Your task to perform on an android device: open the mobile data screen to see how much data has been used Image 0: 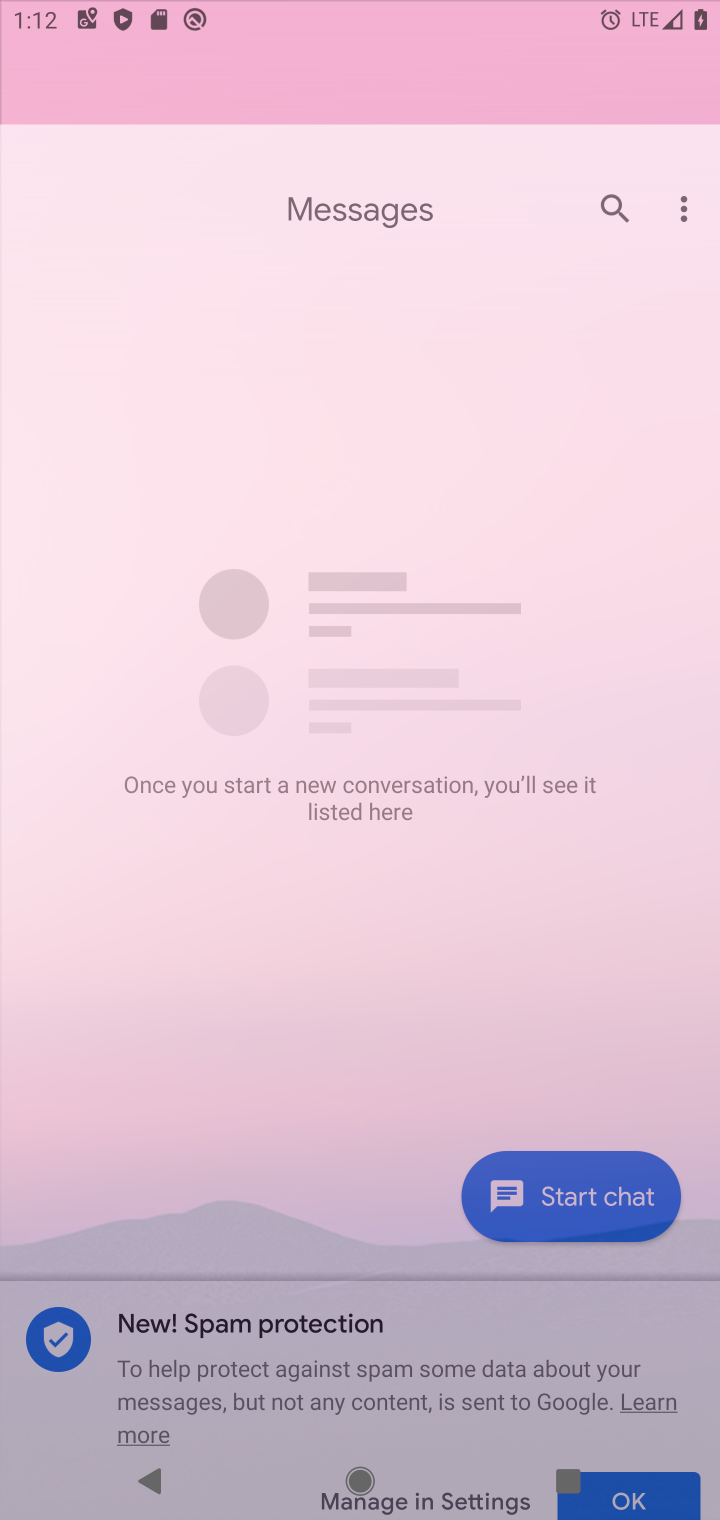
Step 0: press home button
Your task to perform on an android device: open the mobile data screen to see how much data has been used Image 1: 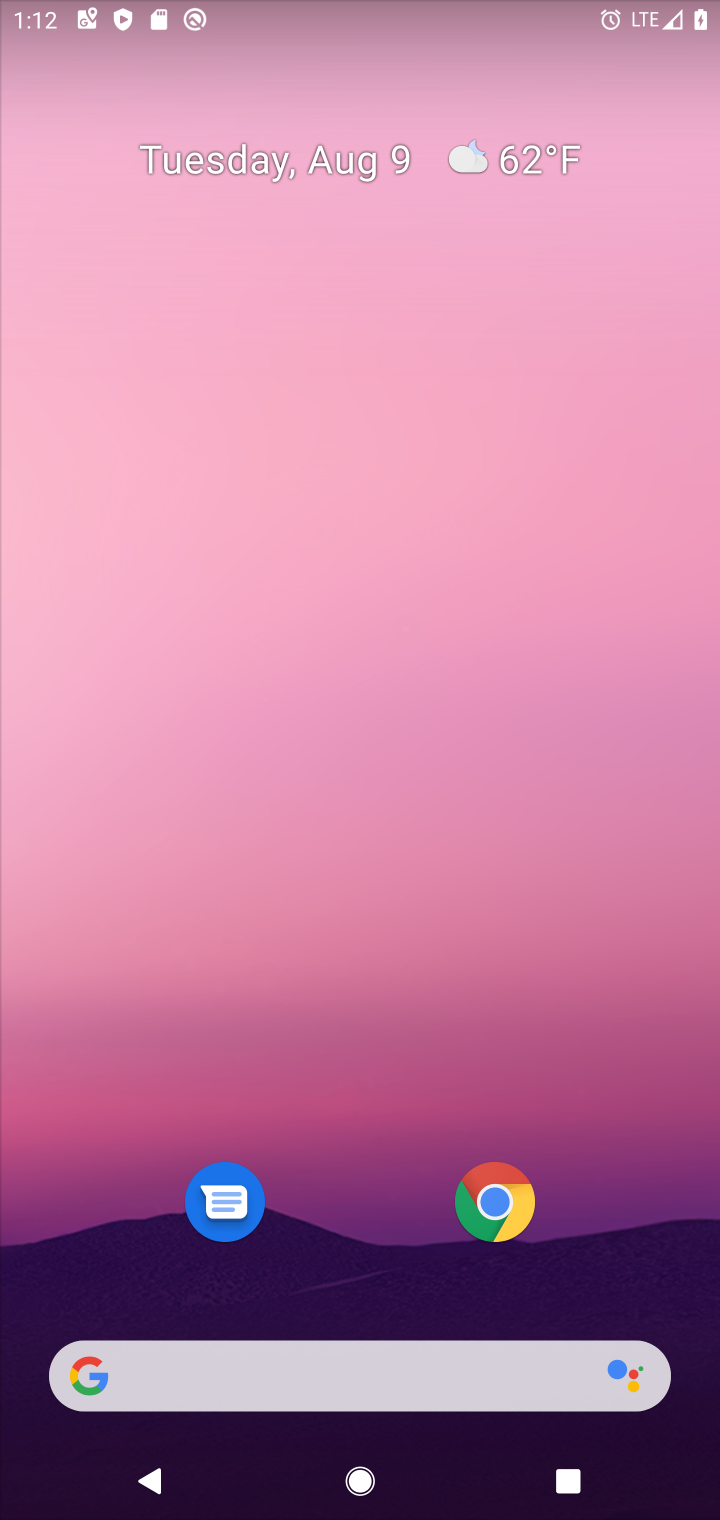
Step 1: click (489, 1193)
Your task to perform on an android device: open the mobile data screen to see how much data has been used Image 2: 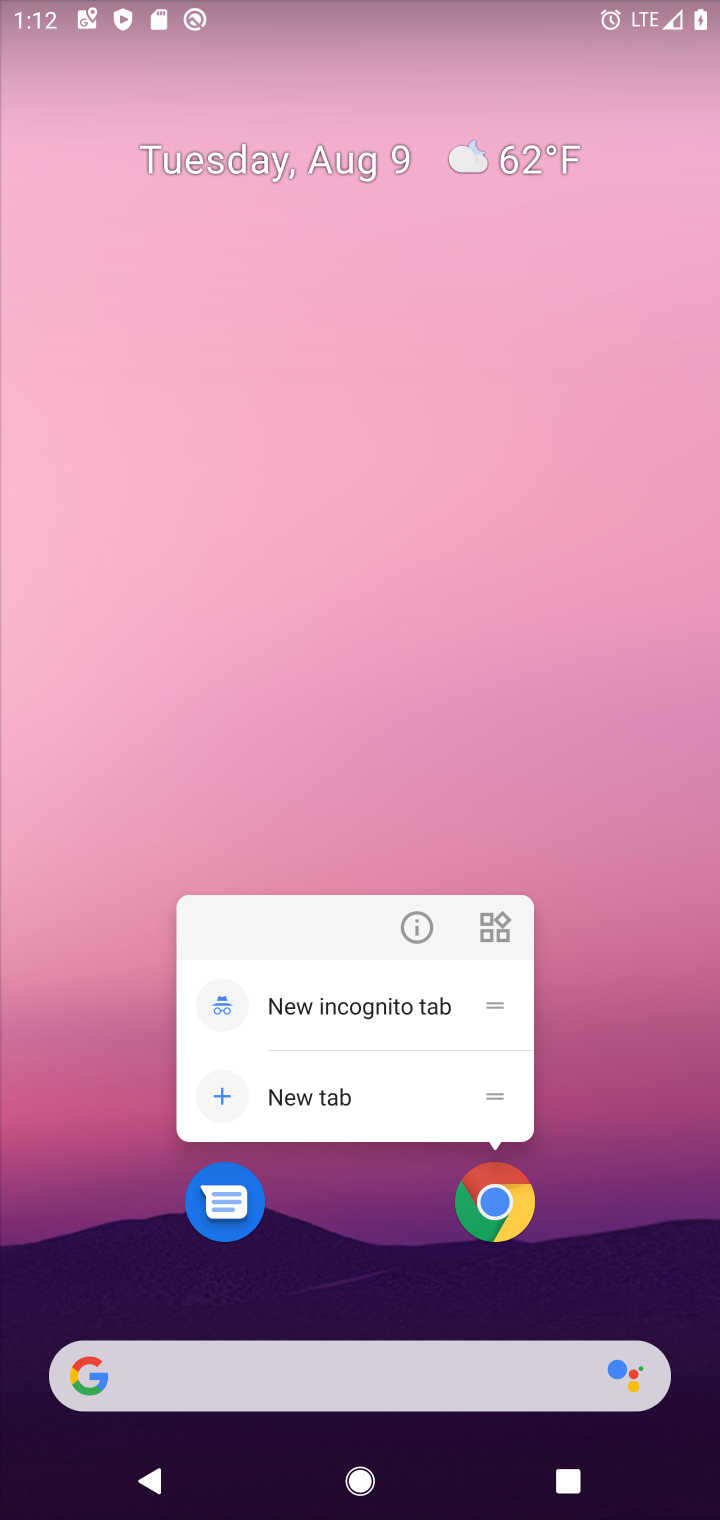
Step 2: click (506, 1201)
Your task to perform on an android device: open the mobile data screen to see how much data has been used Image 3: 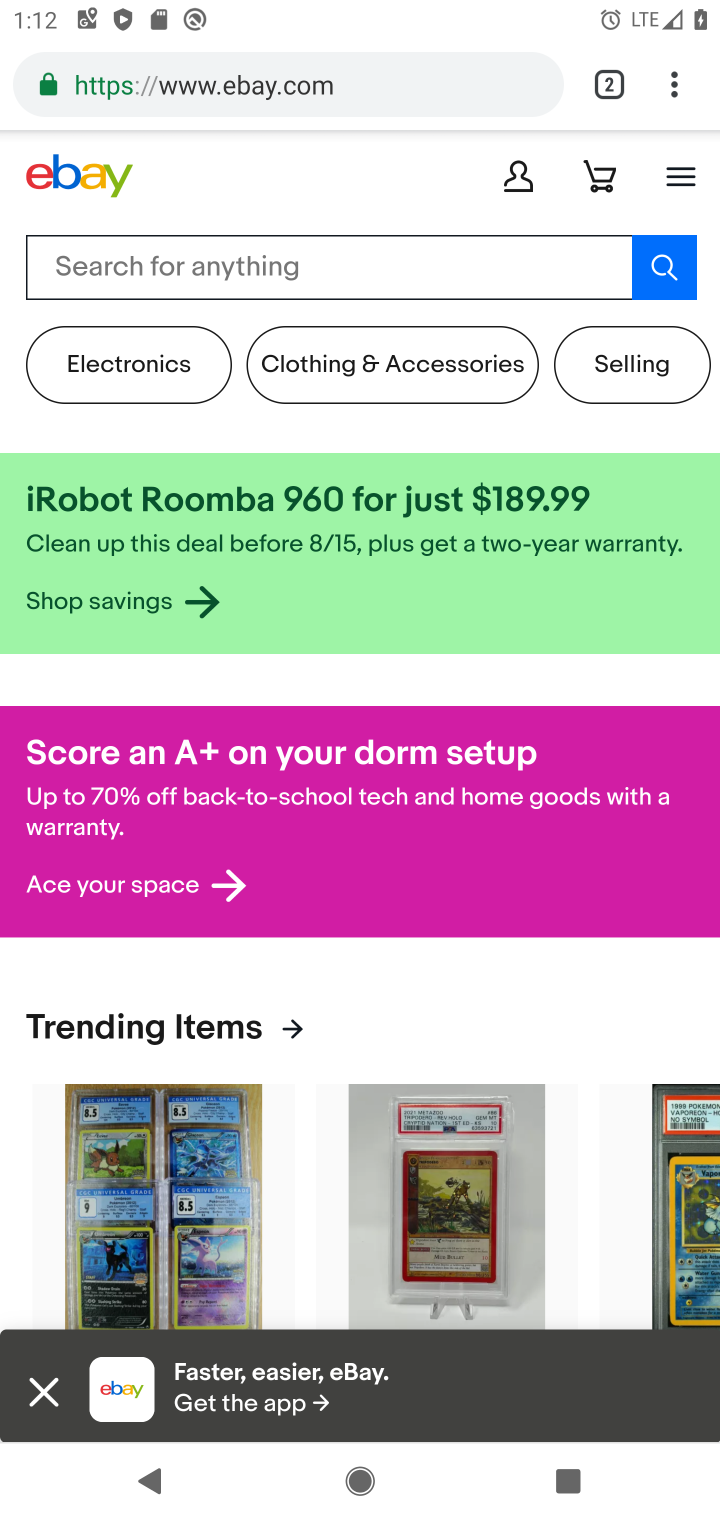
Step 3: press home button
Your task to perform on an android device: open the mobile data screen to see how much data has been used Image 4: 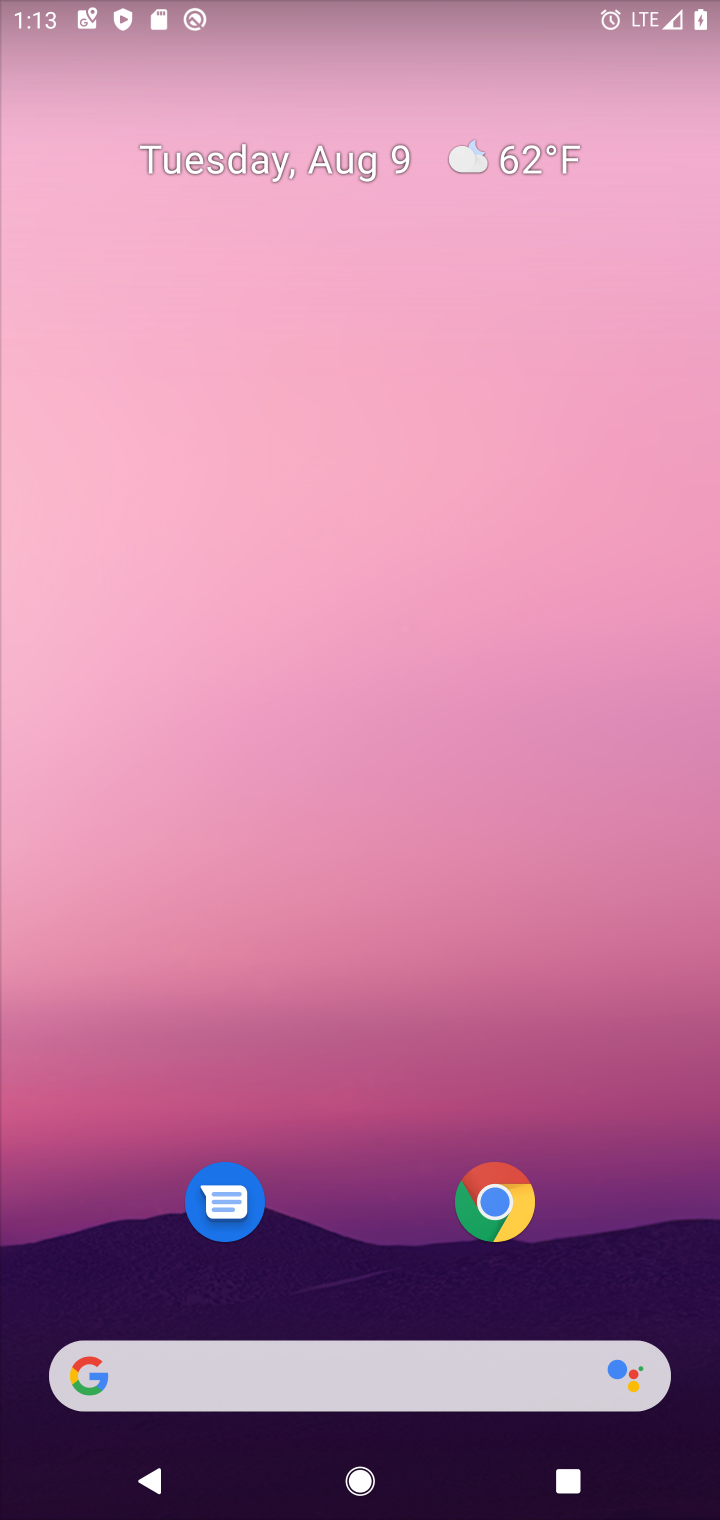
Step 4: click (368, 484)
Your task to perform on an android device: open the mobile data screen to see how much data has been used Image 5: 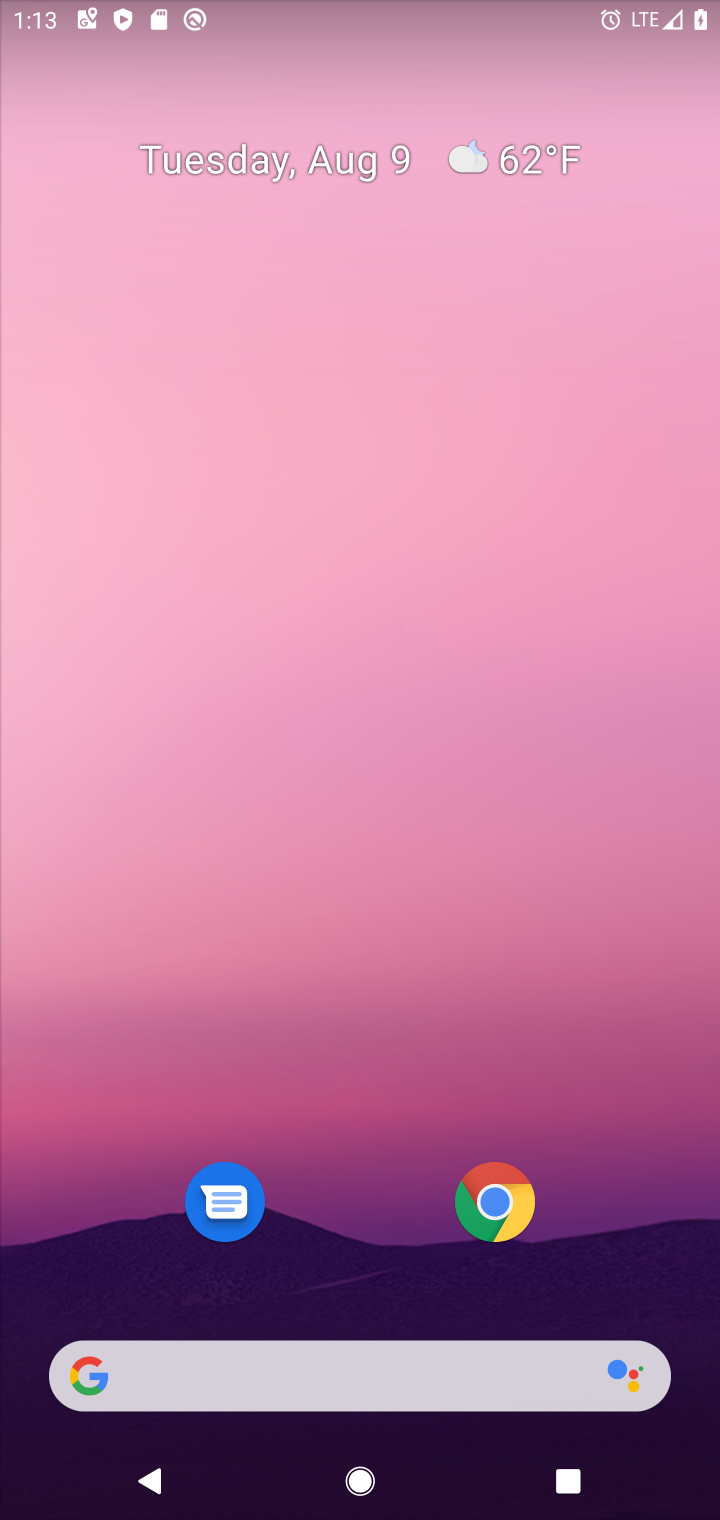
Step 5: drag from (364, 1252) to (462, 23)
Your task to perform on an android device: open the mobile data screen to see how much data has been used Image 6: 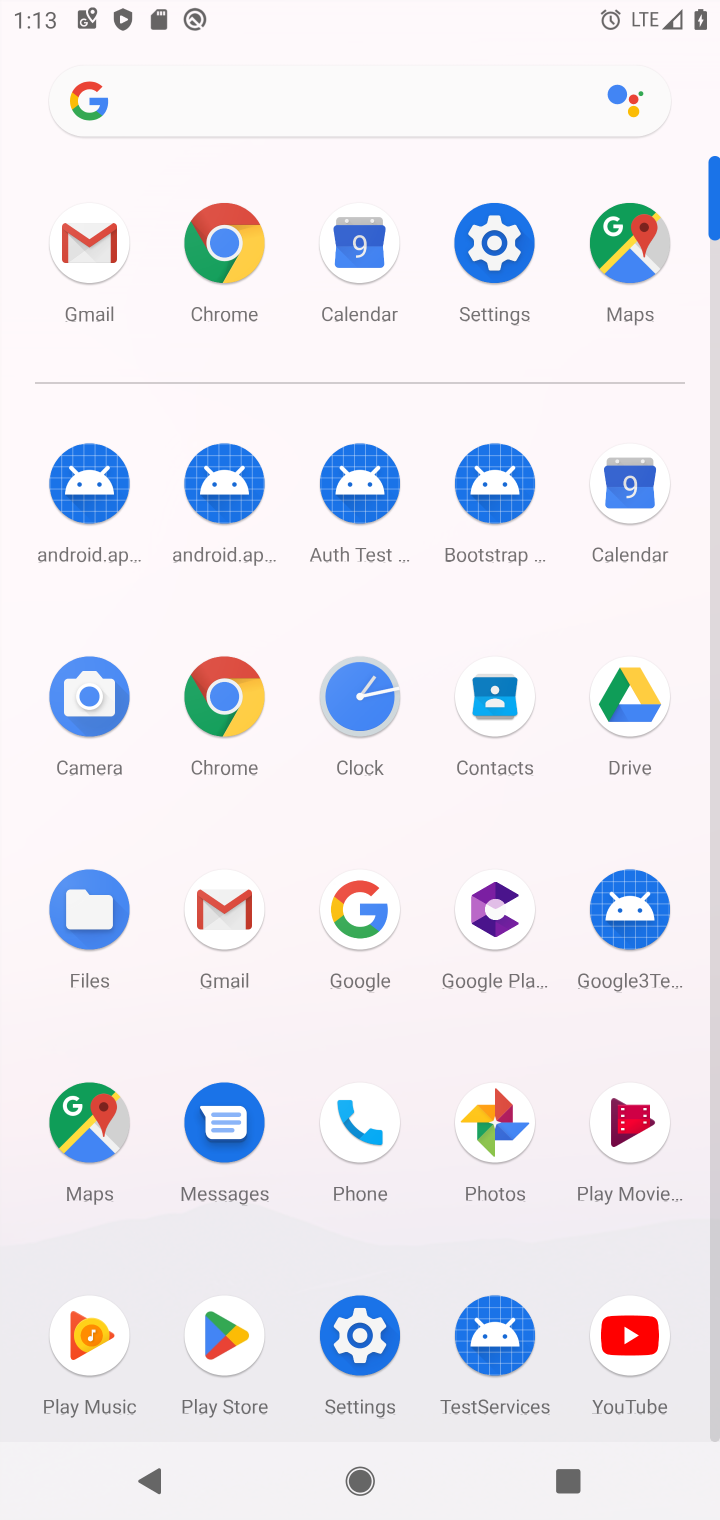
Step 6: click (505, 234)
Your task to perform on an android device: open the mobile data screen to see how much data has been used Image 7: 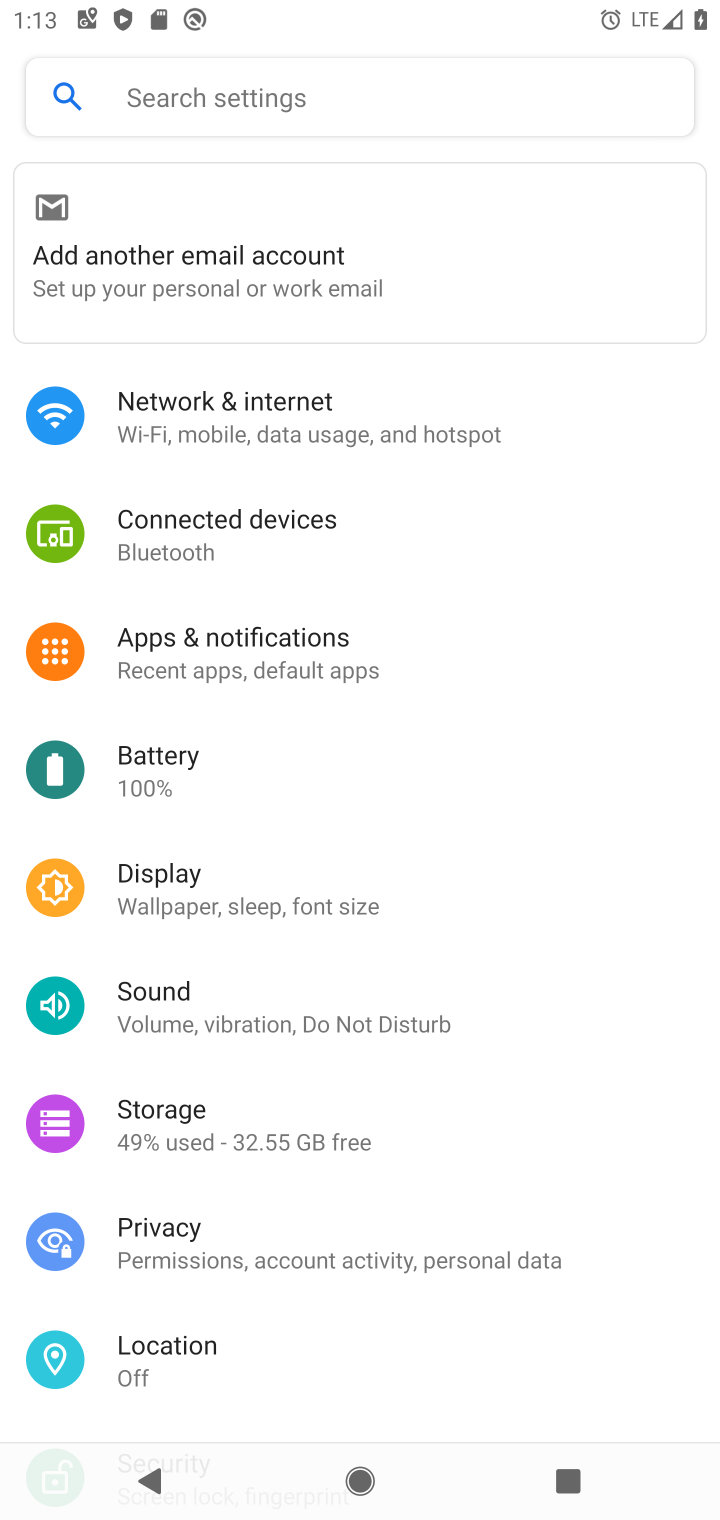
Step 7: click (152, 417)
Your task to perform on an android device: open the mobile data screen to see how much data has been used Image 8: 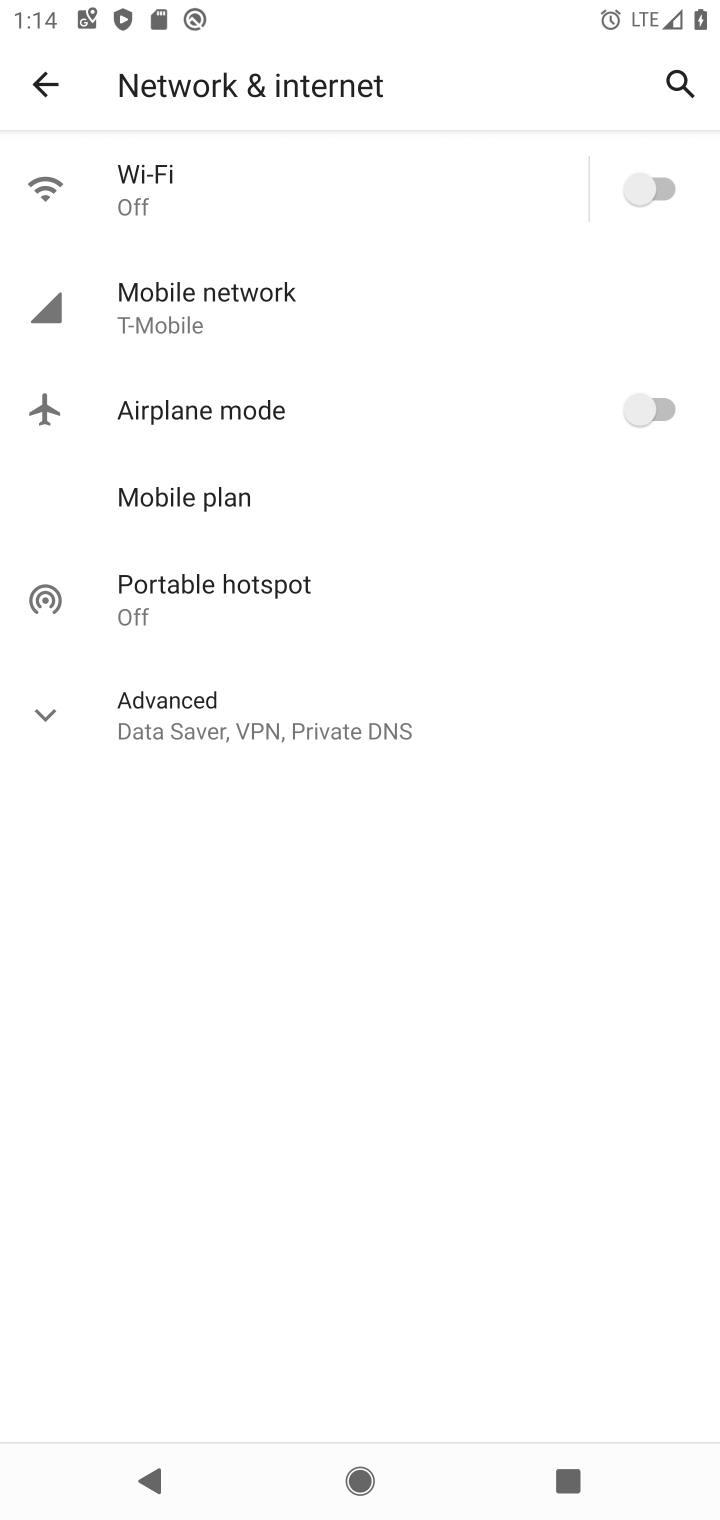
Step 8: click (194, 323)
Your task to perform on an android device: open the mobile data screen to see how much data has been used Image 9: 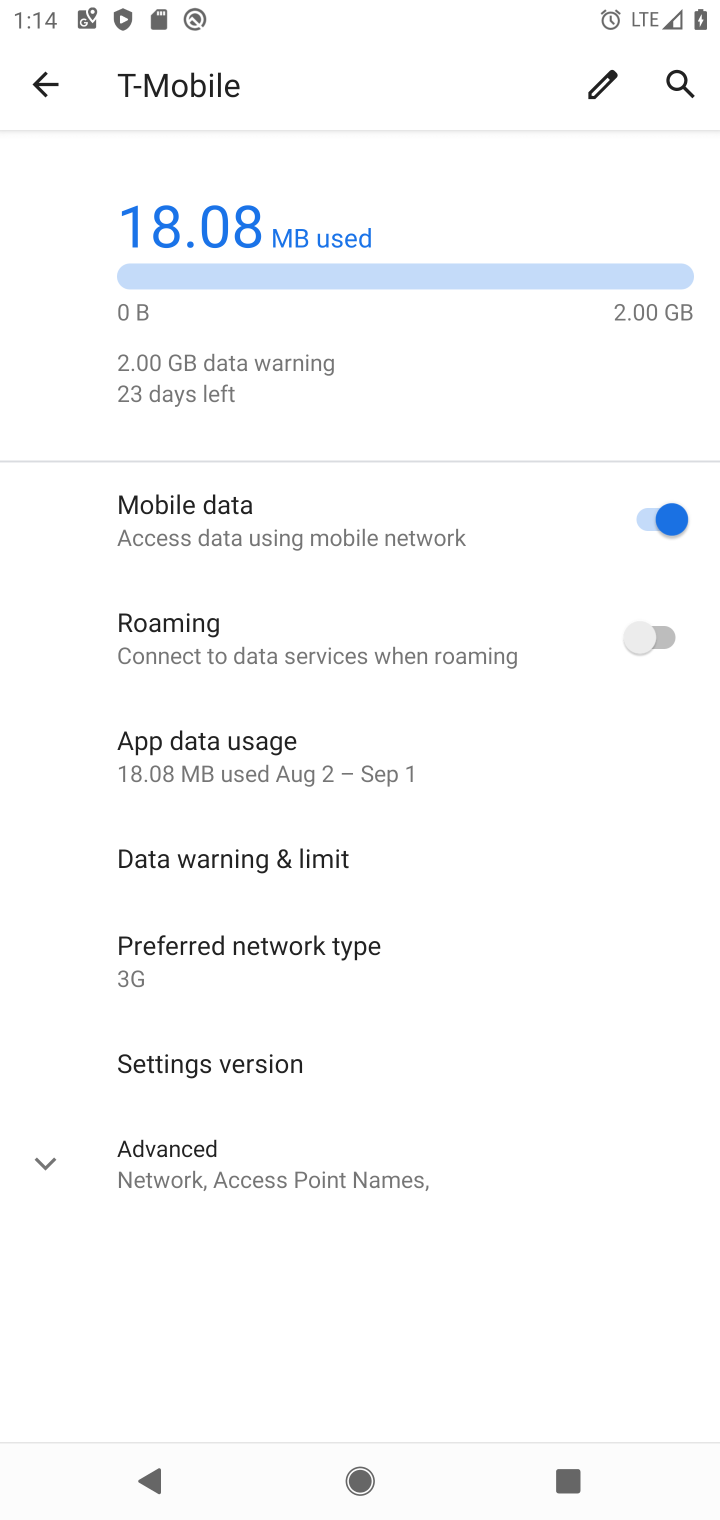
Step 9: task complete